Your task to perform on an android device: open a bookmark in the chrome app Image 0: 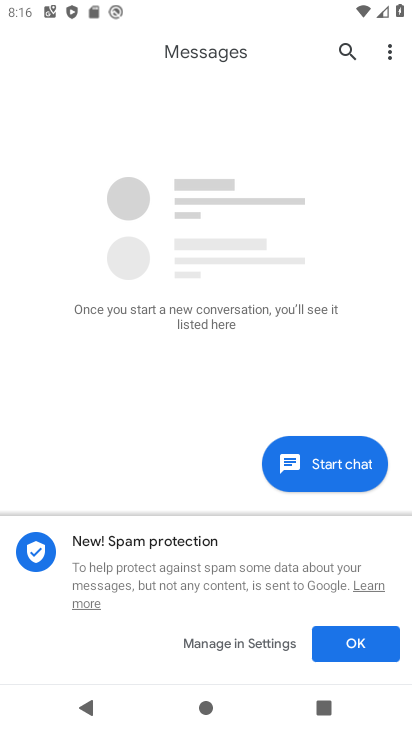
Step 0: press home button
Your task to perform on an android device: open a bookmark in the chrome app Image 1: 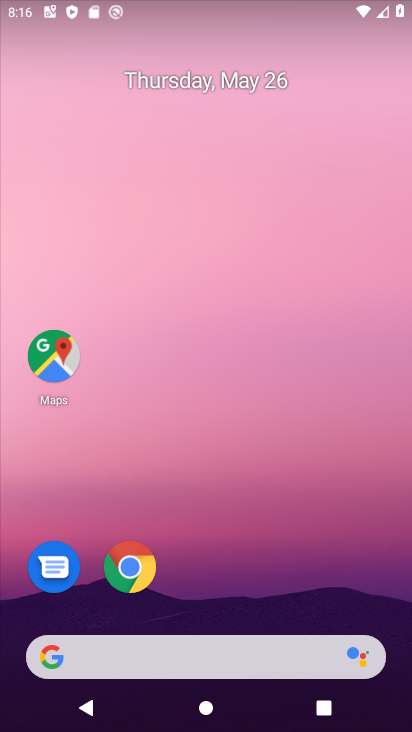
Step 1: click (135, 575)
Your task to perform on an android device: open a bookmark in the chrome app Image 2: 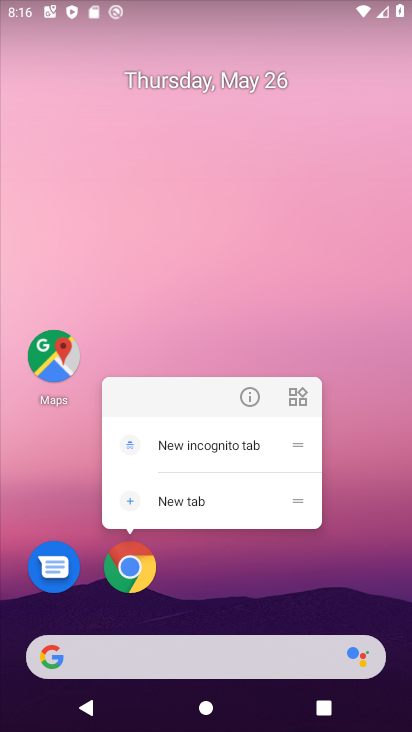
Step 2: click (128, 582)
Your task to perform on an android device: open a bookmark in the chrome app Image 3: 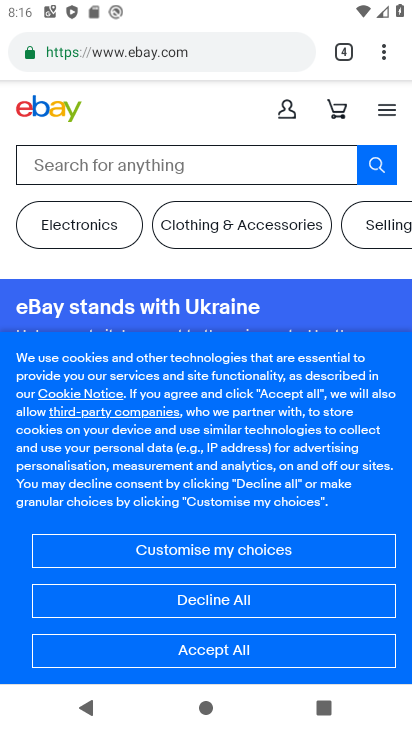
Step 3: task complete